Your task to perform on an android device: Search for usb-a on walmart.com, select the first entry, and add it to the cart. Image 0: 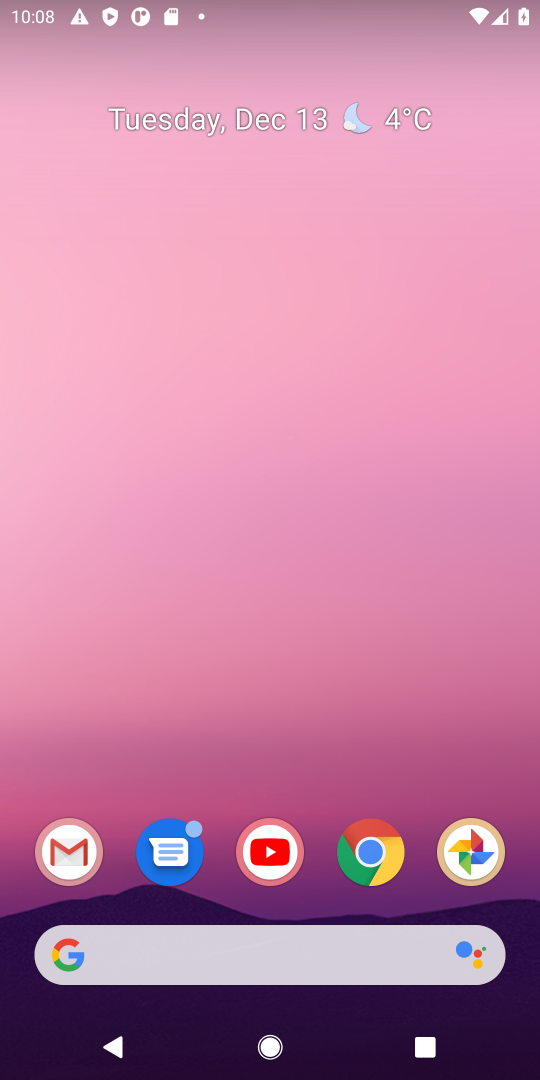
Step 0: press home button
Your task to perform on an android device: Search for usb-a on walmart.com, select the first entry, and add it to the cart. Image 1: 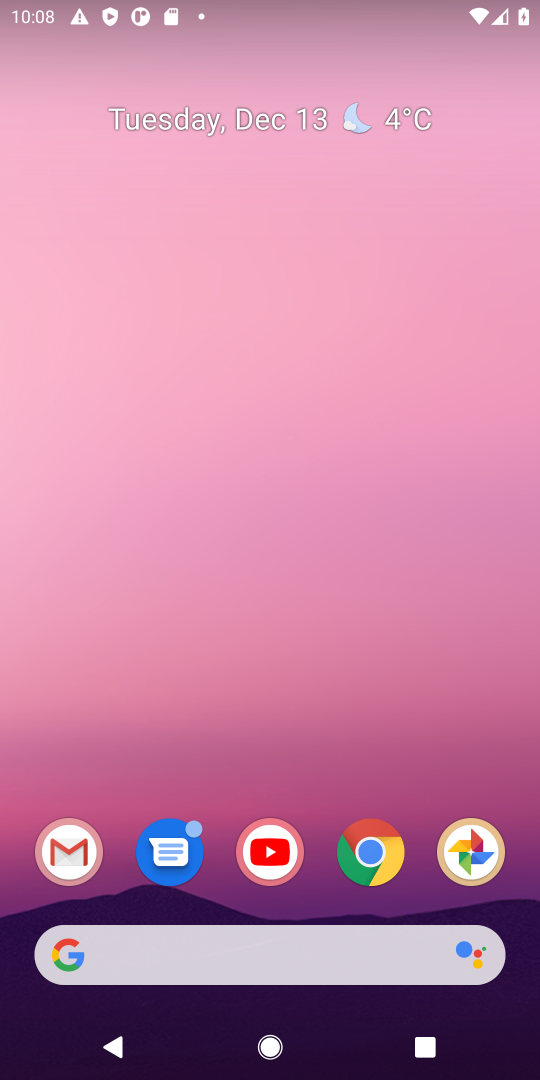
Step 1: click (113, 959)
Your task to perform on an android device: Search for usb-a on walmart.com, select the first entry, and add it to the cart. Image 2: 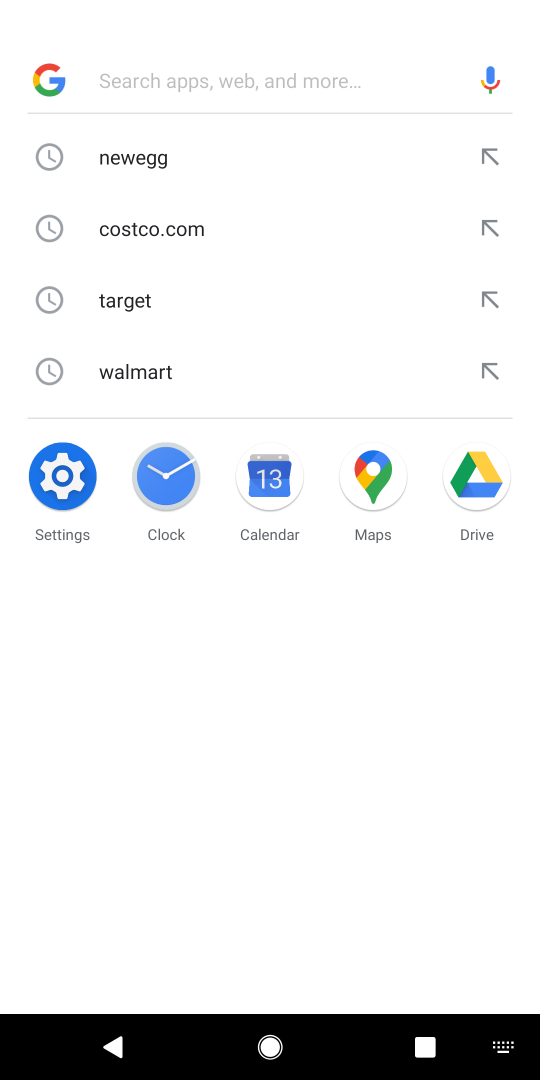
Step 2: press enter
Your task to perform on an android device: Search for usb-a on walmart.com, select the first entry, and add it to the cart. Image 3: 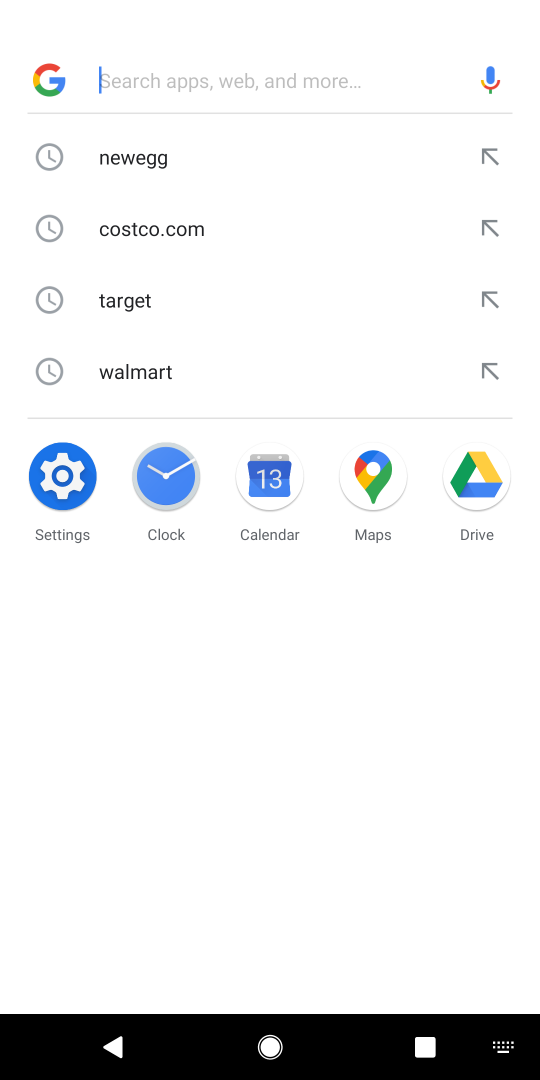
Step 3: type "walmart.com"
Your task to perform on an android device: Search for usb-a on walmart.com, select the first entry, and add it to the cart. Image 4: 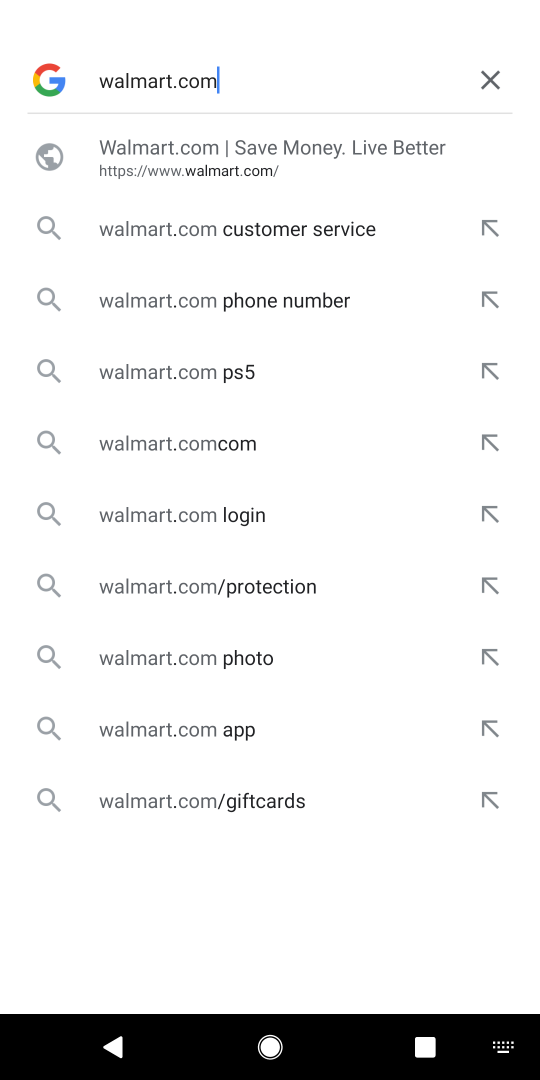
Step 4: press enter
Your task to perform on an android device: Search for usb-a on walmart.com, select the first entry, and add it to the cart. Image 5: 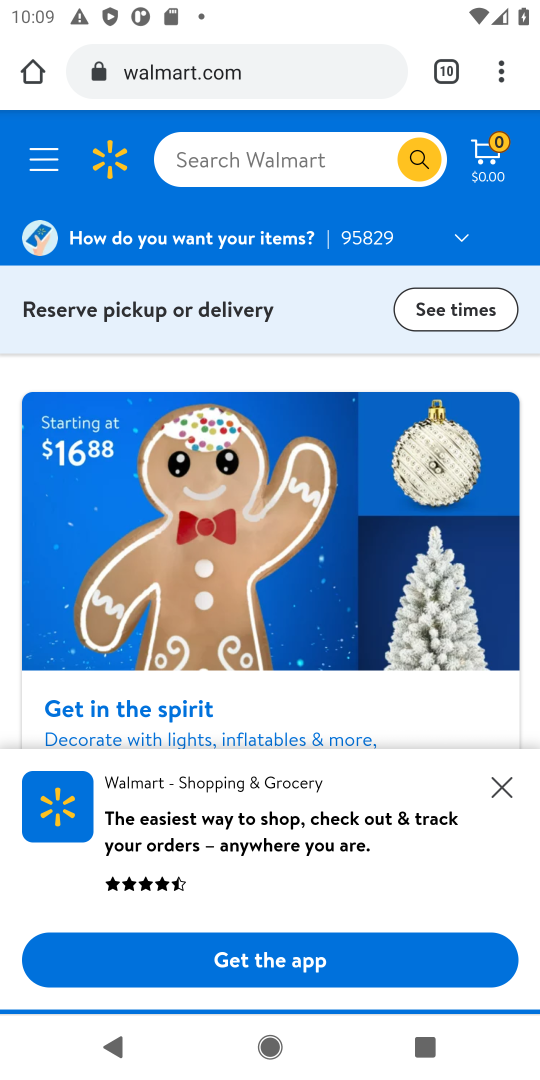
Step 5: click (205, 161)
Your task to perform on an android device: Search for usb-a on walmart.com, select the first entry, and add it to the cart. Image 6: 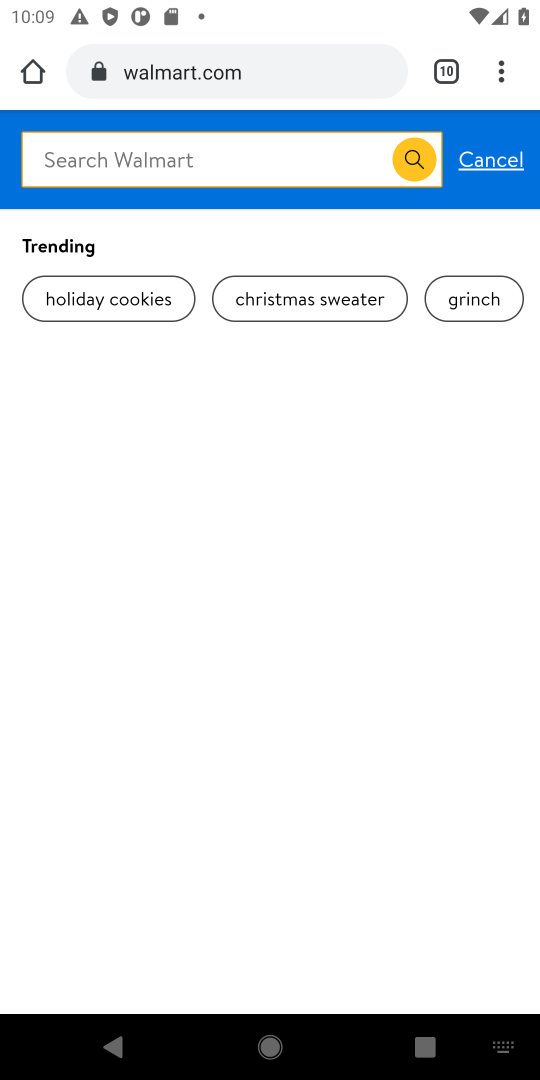
Step 6: press enter
Your task to perform on an android device: Search for usb-a on walmart.com, select the first entry, and add it to the cart. Image 7: 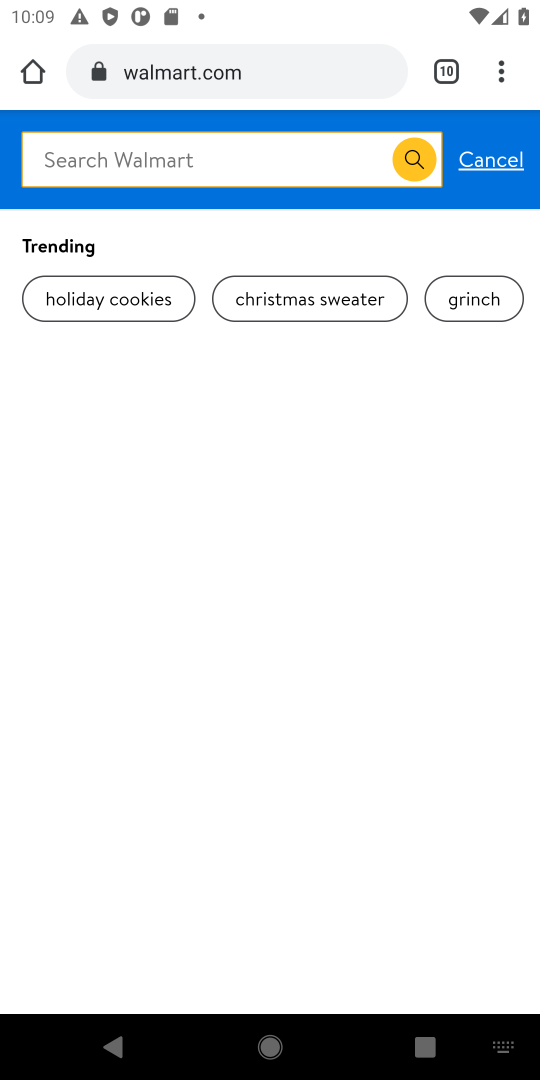
Step 7: type "usb-a"
Your task to perform on an android device: Search for usb-a on walmart.com, select the first entry, and add it to the cart. Image 8: 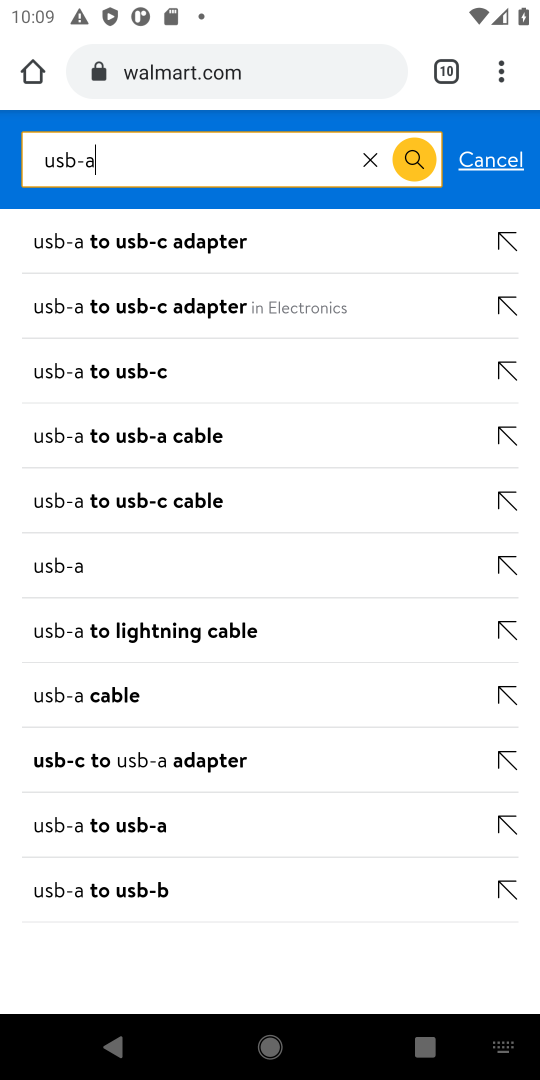
Step 8: click (418, 161)
Your task to perform on an android device: Search for usb-a on walmart.com, select the first entry, and add it to the cart. Image 9: 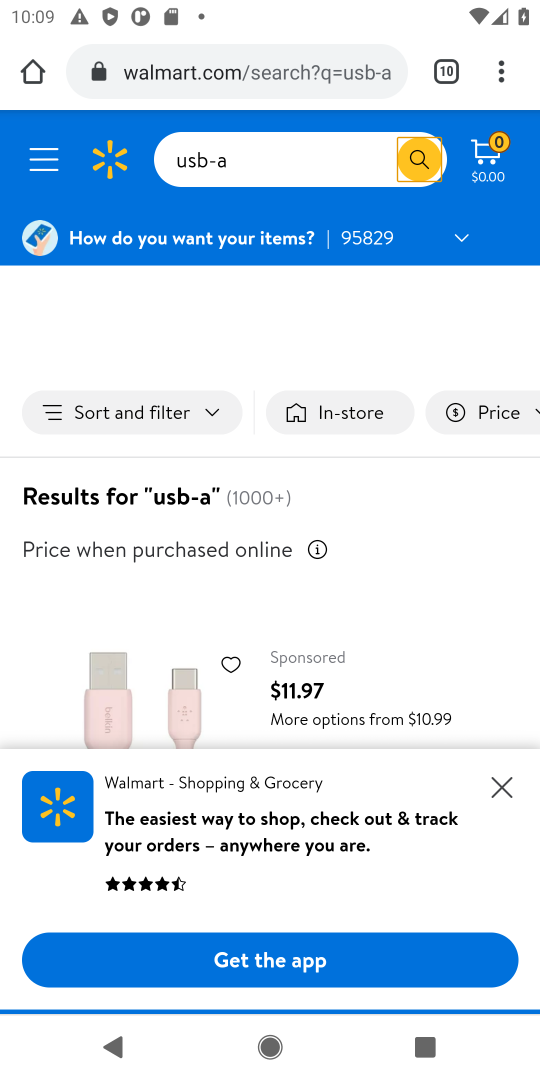
Step 9: click (498, 785)
Your task to perform on an android device: Search for usb-a on walmart.com, select the first entry, and add it to the cart. Image 10: 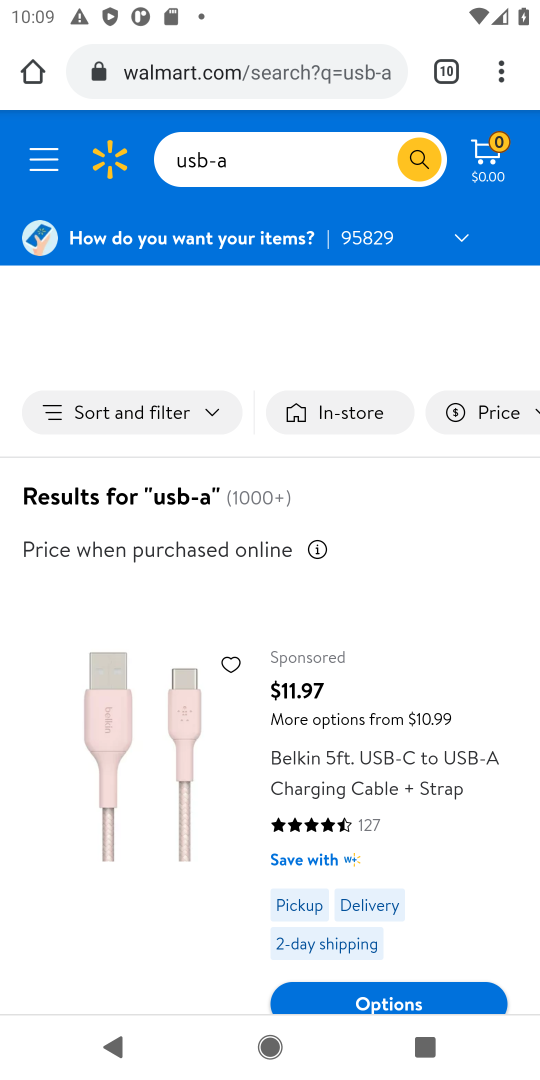
Step 10: drag from (410, 901) to (416, 549)
Your task to perform on an android device: Search for usb-a on walmart.com, select the first entry, and add it to the cart. Image 11: 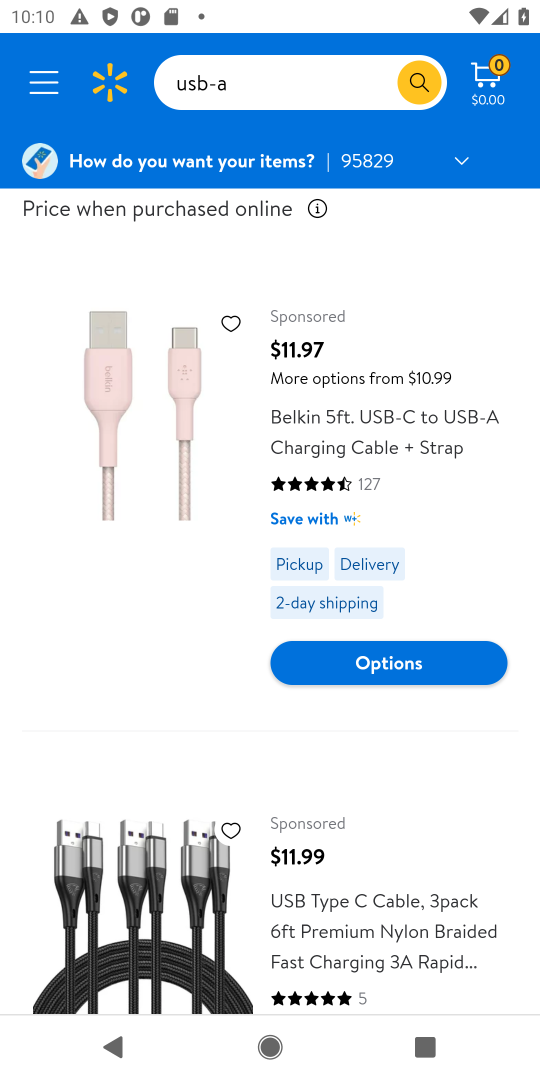
Step 11: click (363, 446)
Your task to perform on an android device: Search for usb-a on walmart.com, select the first entry, and add it to the cart. Image 12: 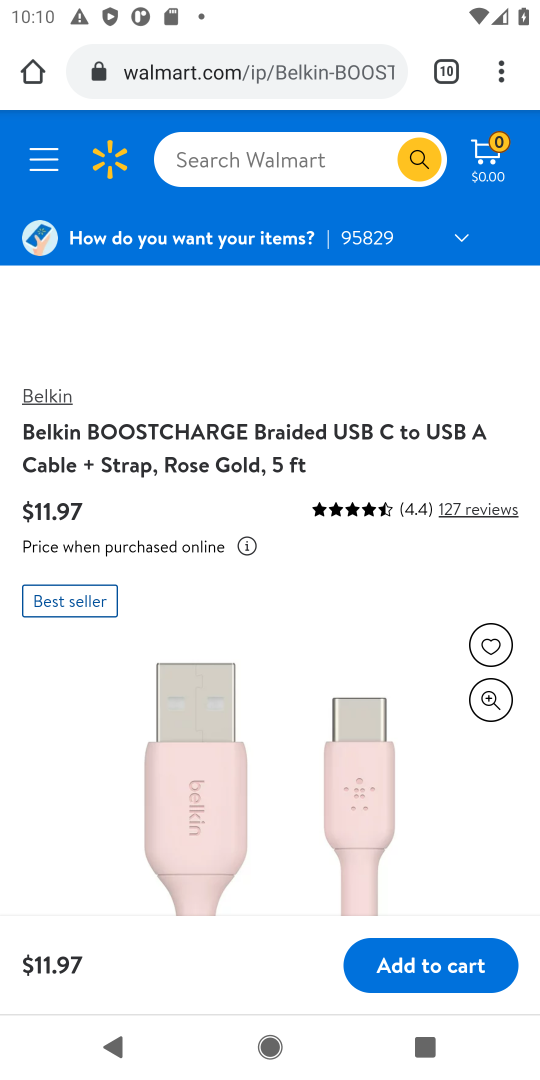
Step 12: click (423, 977)
Your task to perform on an android device: Search for usb-a on walmart.com, select the first entry, and add it to the cart. Image 13: 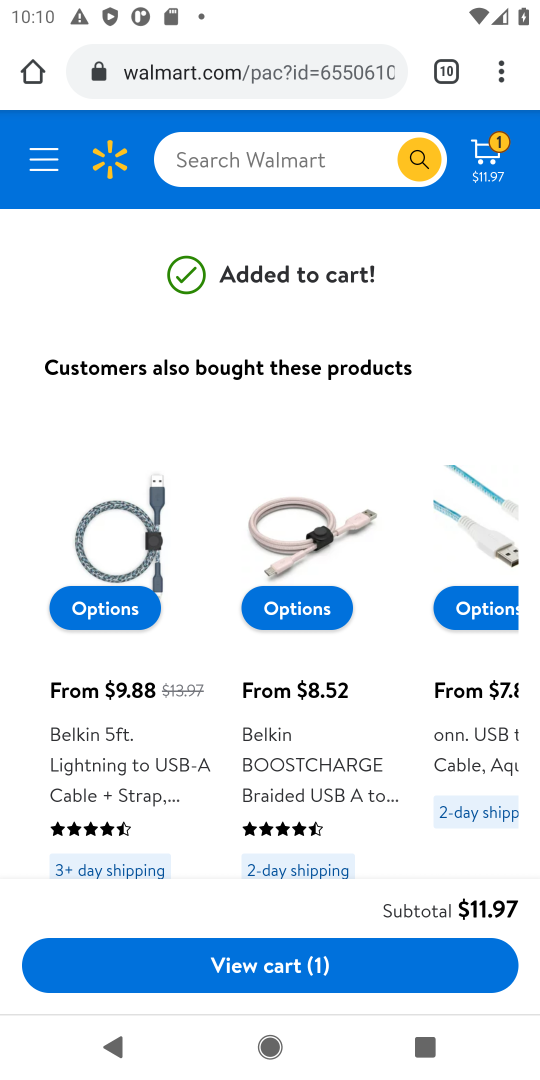
Step 13: task complete